Your task to perform on an android device: turn off picture-in-picture Image 0: 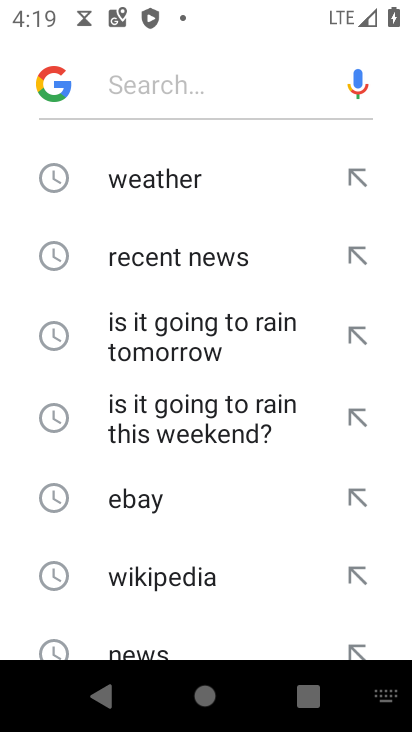
Step 0: press back button
Your task to perform on an android device: turn off picture-in-picture Image 1: 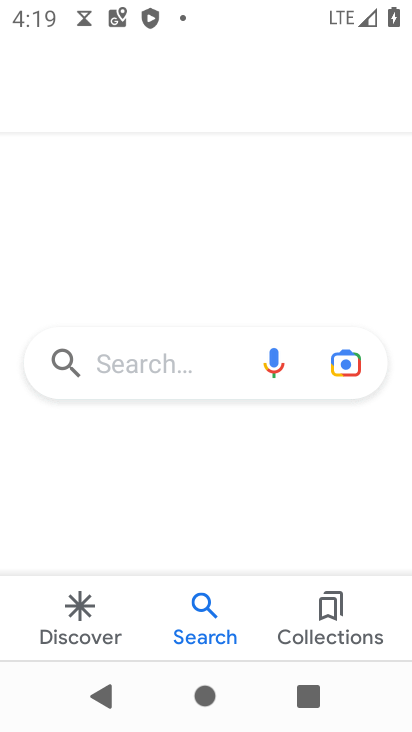
Step 1: press back button
Your task to perform on an android device: turn off picture-in-picture Image 2: 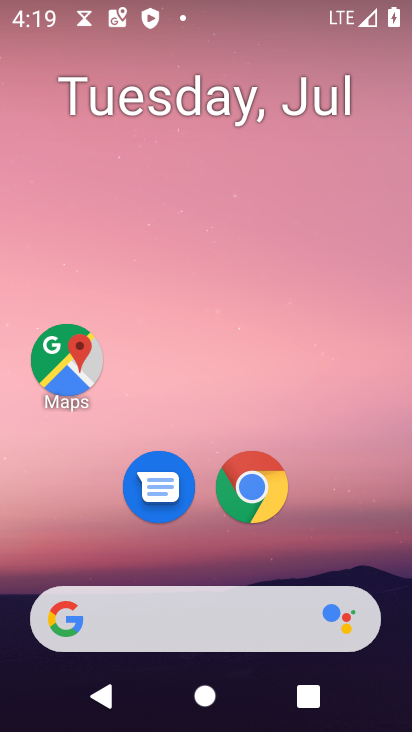
Step 2: drag from (205, 574) to (234, 16)
Your task to perform on an android device: turn off picture-in-picture Image 3: 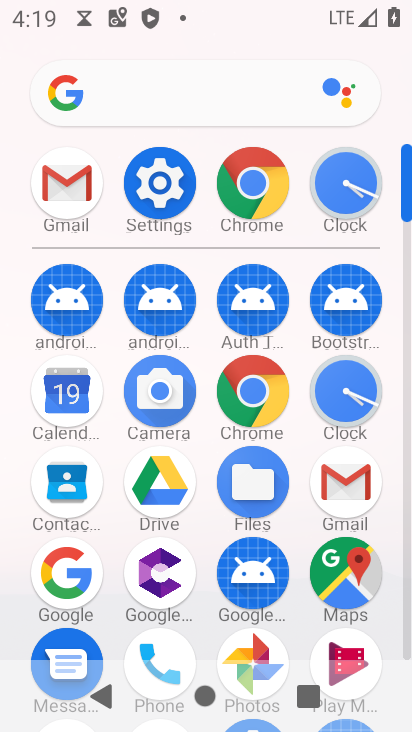
Step 3: click (163, 192)
Your task to perform on an android device: turn off picture-in-picture Image 4: 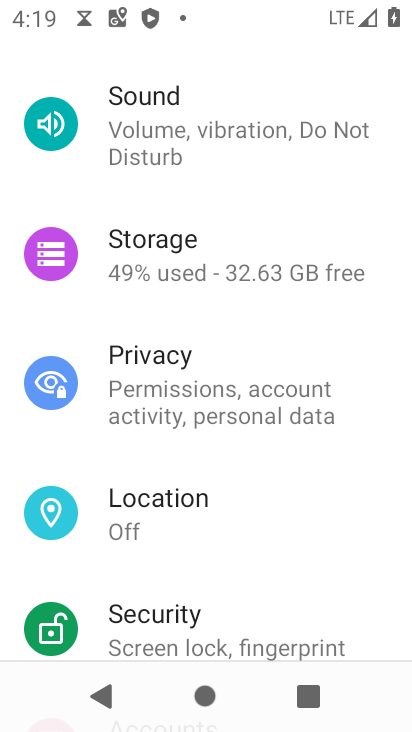
Step 4: drag from (246, 148) to (177, 698)
Your task to perform on an android device: turn off picture-in-picture Image 5: 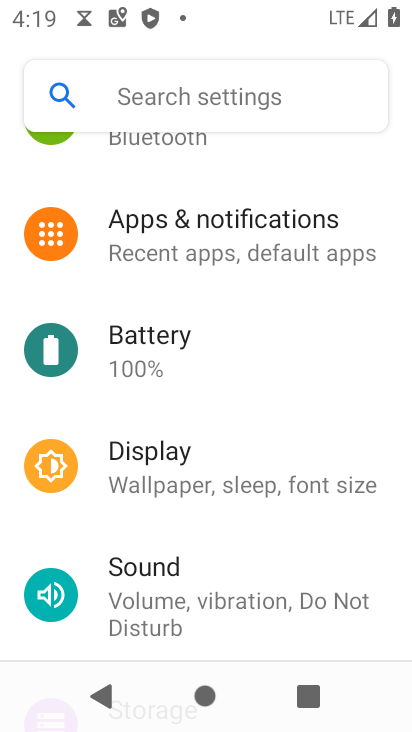
Step 5: drag from (267, 196) to (246, 719)
Your task to perform on an android device: turn off picture-in-picture Image 6: 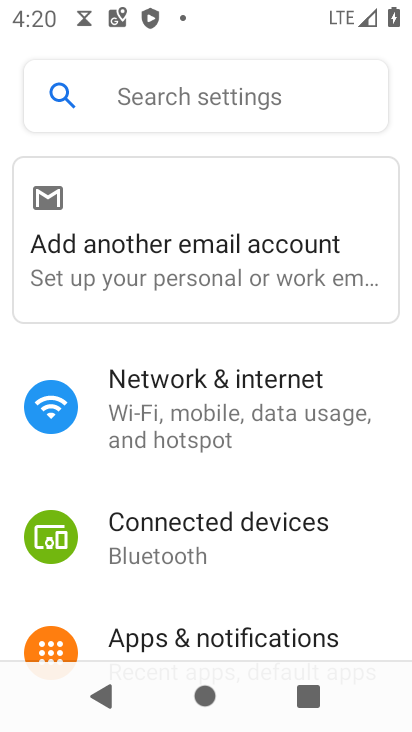
Step 6: drag from (134, 588) to (196, 209)
Your task to perform on an android device: turn off picture-in-picture Image 7: 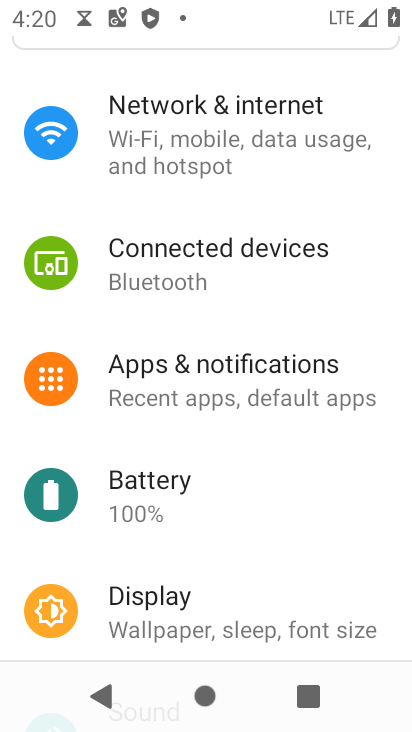
Step 7: click (256, 389)
Your task to perform on an android device: turn off picture-in-picture Image 8: 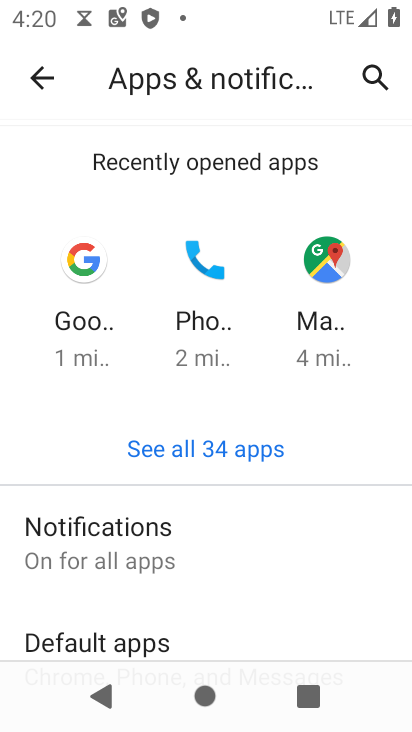
Step 8: drag from (172, 511) to (275, 35)
Your task to perform on an android device: turn off picture-in-picture Image 9: 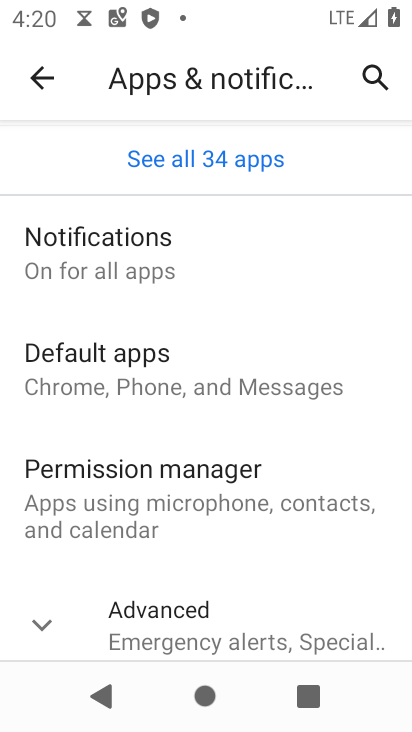
Step 9: click (164, 611)
Your task to perform on an android device: turn off picture-in-picture Image 10: 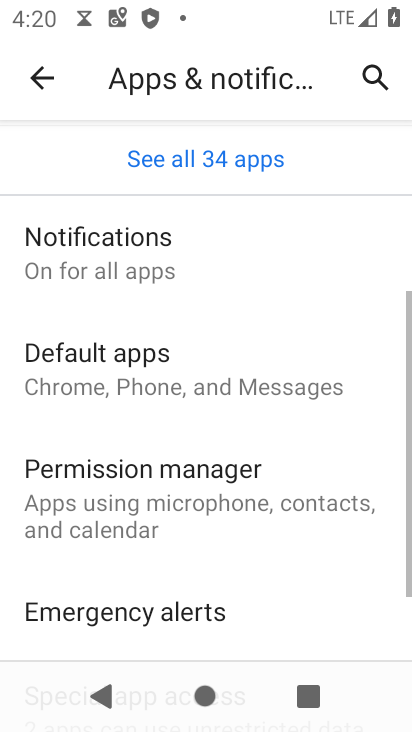
Step 10: drag from (179, 589) to (273, 12)
Your task to perform on an android device: turn off picture-in-picture Image 11: 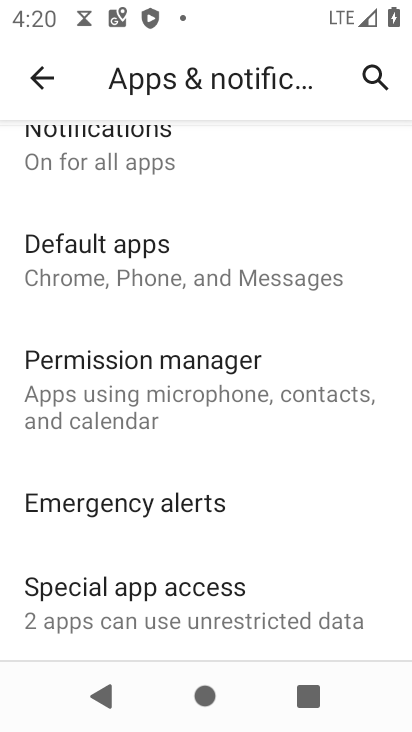
Step 11: click (158, 607)
Your task to perform on an android device: turn off picture-in-picture Image 12: 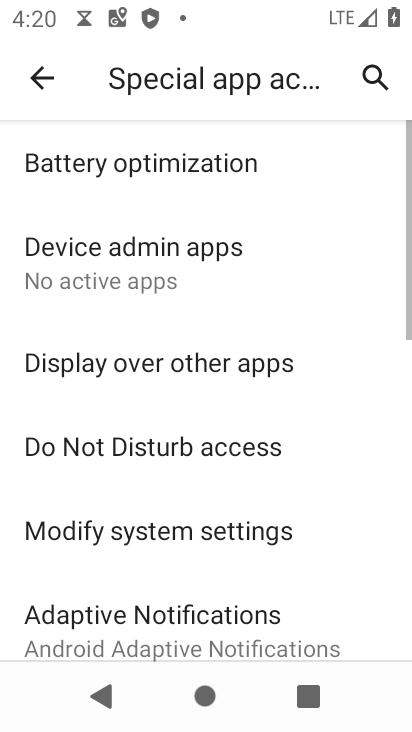
Step 12: drag from (173, 591) to (302, 6)
Your task to perform on an android device: turn off picture-in-picture Image 13: 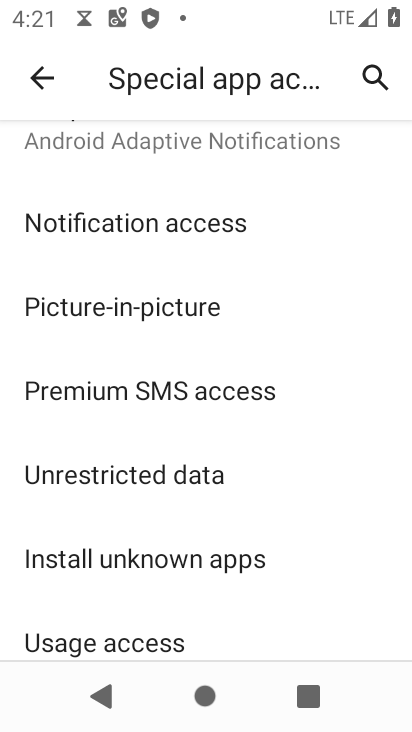
Step 13: click (96, 292)
Your task to perform on an android device: turn off picture-in-picture Image 14: 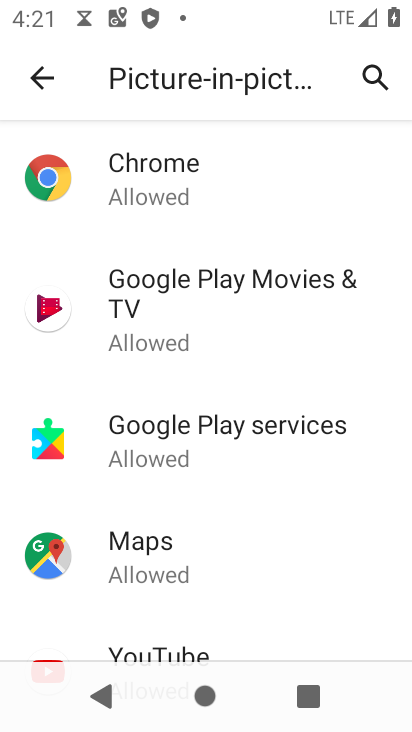
Step 14: click (172, 185)
Your task to perform on an android device: turn off picture-in-picture Image 15: 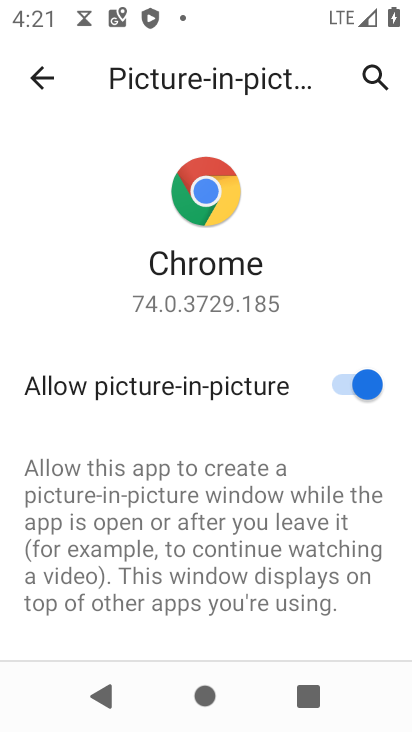
Step 15: click (363, 389)
Your task to perform on an android device: turn off picture-in-picture Image 16: 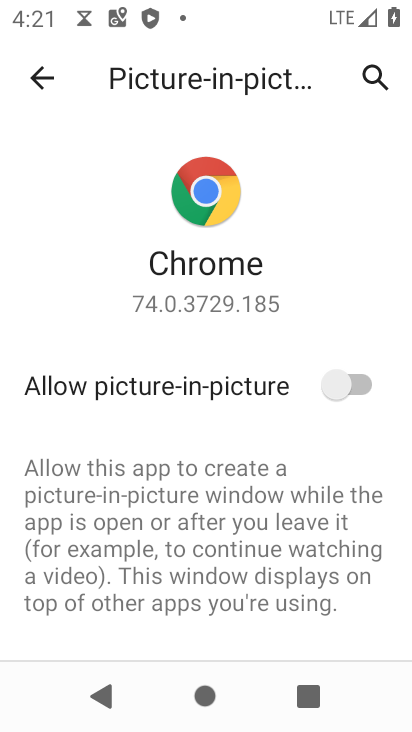
Step 16: task complete